Your task to perform on an android device: manage bookmarks in the chrome app Image 0: 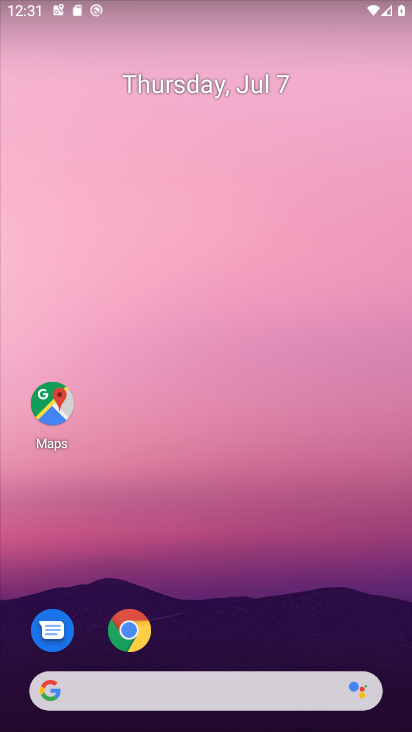
Step 0: drag from (239, 624) to (250, 239)
Your task to perform on an android device: manage bookmarks in the chrome app Image 1: 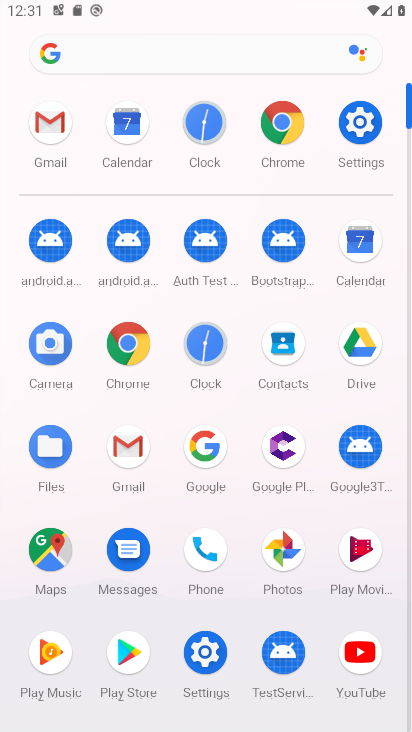
Step 1: click (285, 118)
Your task to perform on an android device: manage bookmarks in the chrome app Image 2: 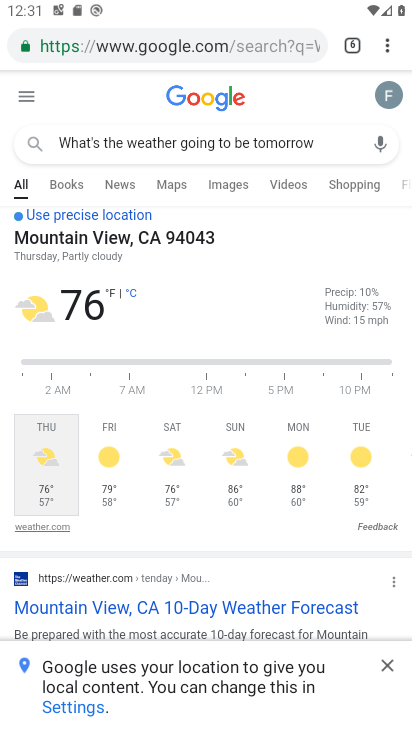
Step 2: click (395, 39)
Your task to perform on an android device: manage bookmarks in the chrome app Image 3: 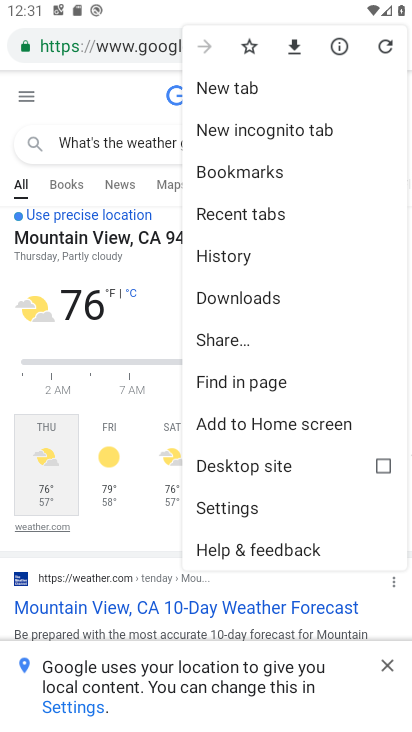
Step 3: click (265, 179)
Your task to perform on an android device: manage bookmarks in the chrome app Image 4: 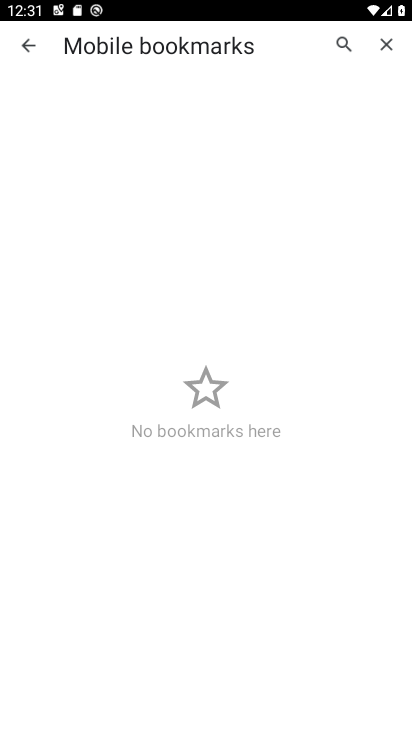
Step 4: task complete